Your task to perform on an android device: Add "duracell triple a" to the cart on amazon.com, then select checkout. Image 0: 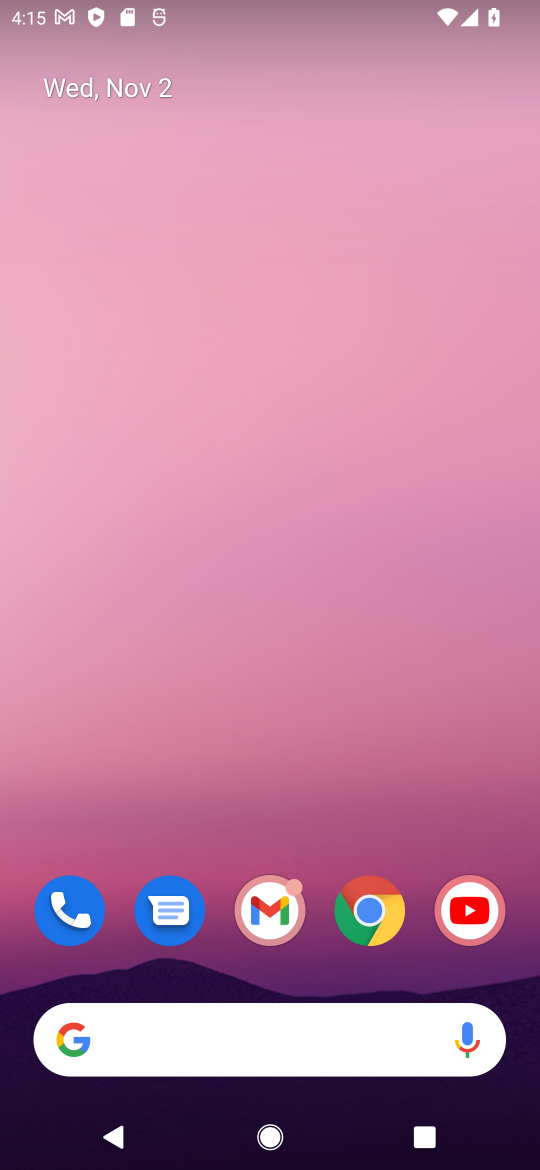
Step 0: click (376, 892)
Your task to perform on an android device: Add "duracell triple a" to the cart on amazon.com, then select checkout. Image 1: 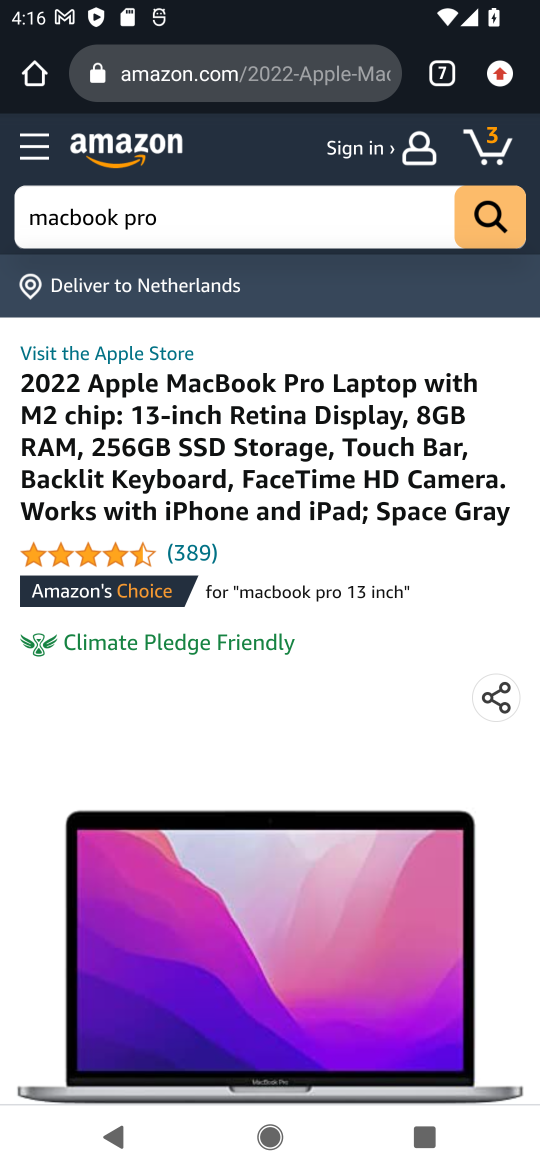
Step 1: click (174, 217)
Your task to perform on an android device: Add "duracell triple a" to the cart on amazon.com, then select checkout. Image 2: 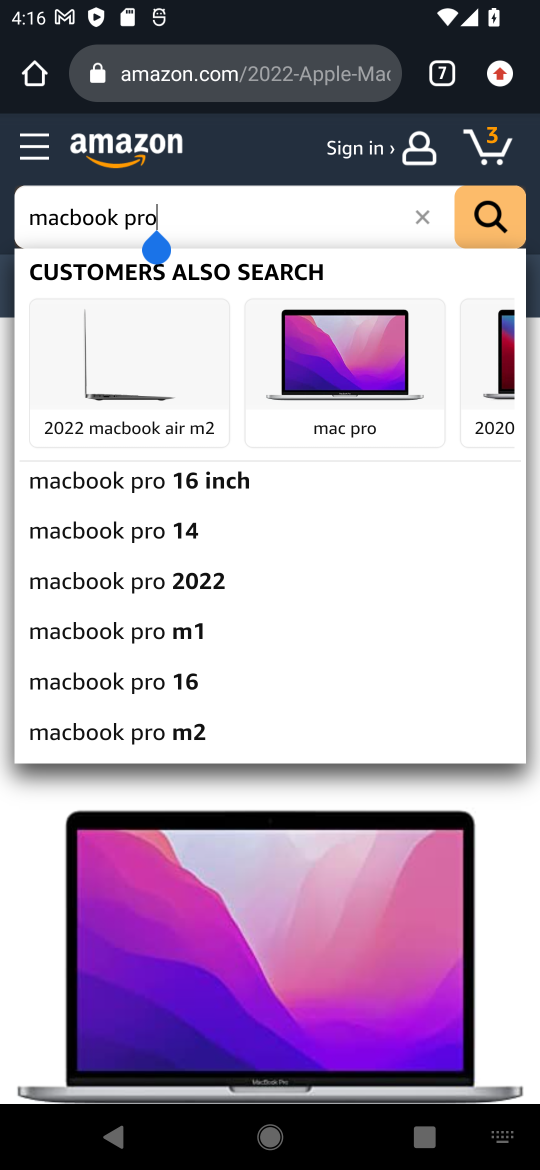
Step 2: click (425, 213)
Your task to perform on an android device: Add "duracell triple a" to the cart on amazon.com, then select checkout. Image 3: 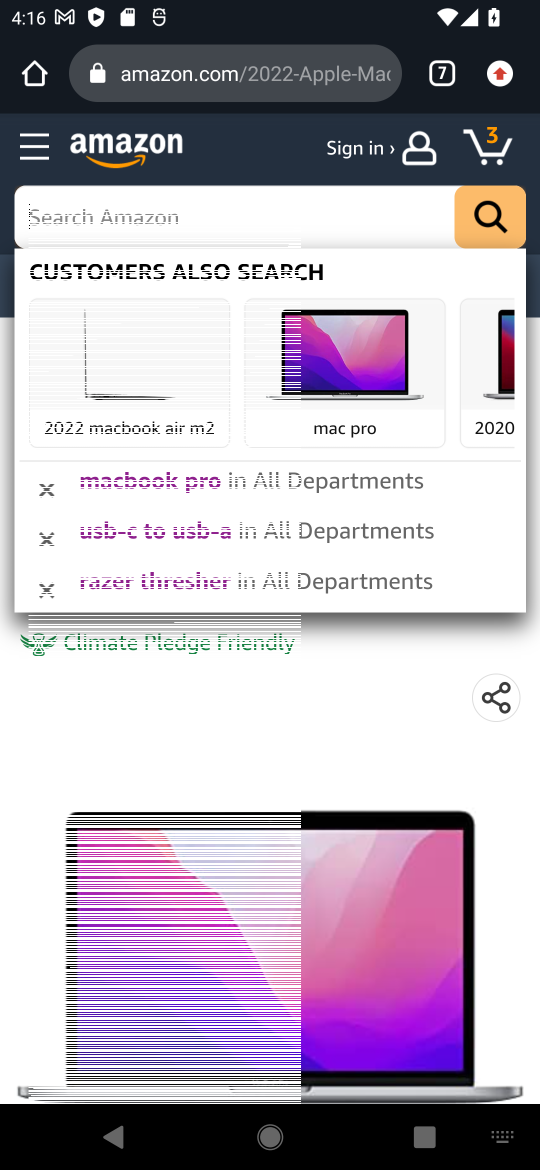
Step 3: type "duracell triple a"
Your task to perform on an android device: Add "duracell triple a" to the cart on amazon.com, then select checkout. Image 4: 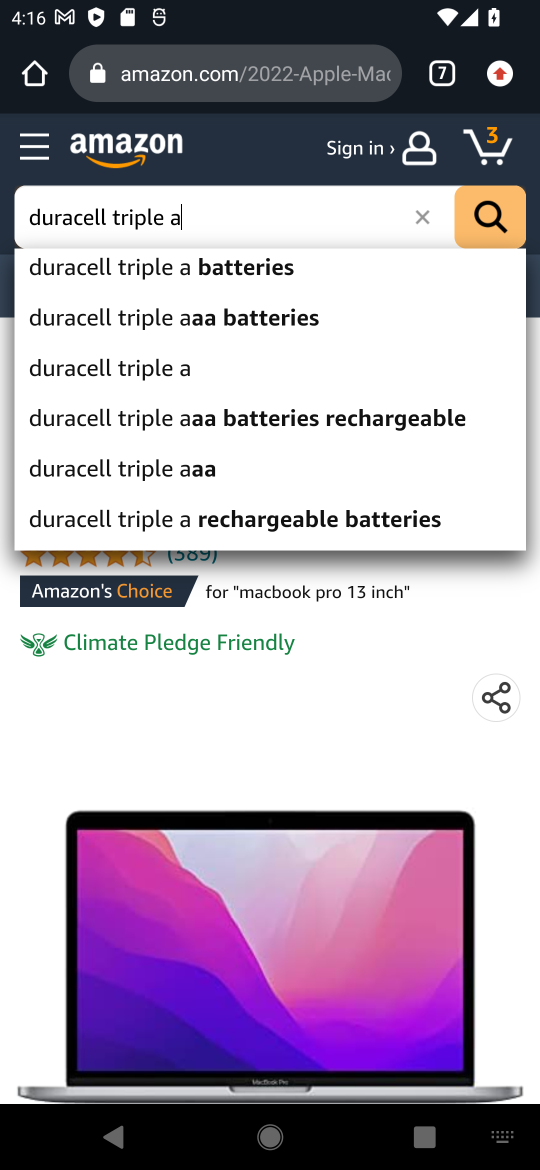
Step 4: click (247, 263)
Your task to perform on an android device: Add "duracell triple a" to the cart on amazon.com, then select checkout. Image 5: 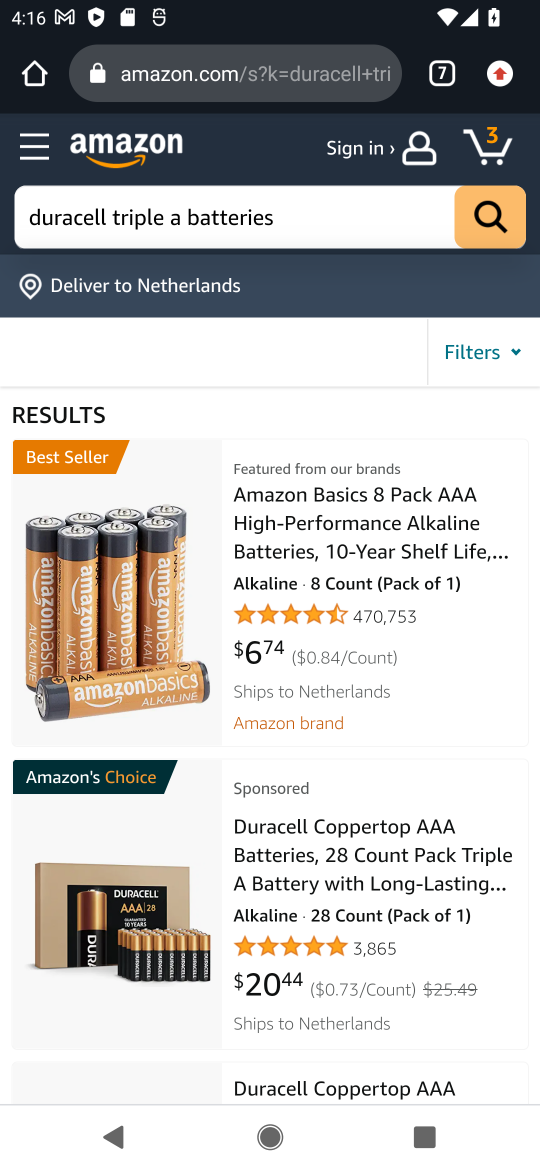
Step 5: click (363, 540)
Your task to perform on an android device: Add "duracell triple a" to the cart on amazon.com, then select checkout. Image 6: 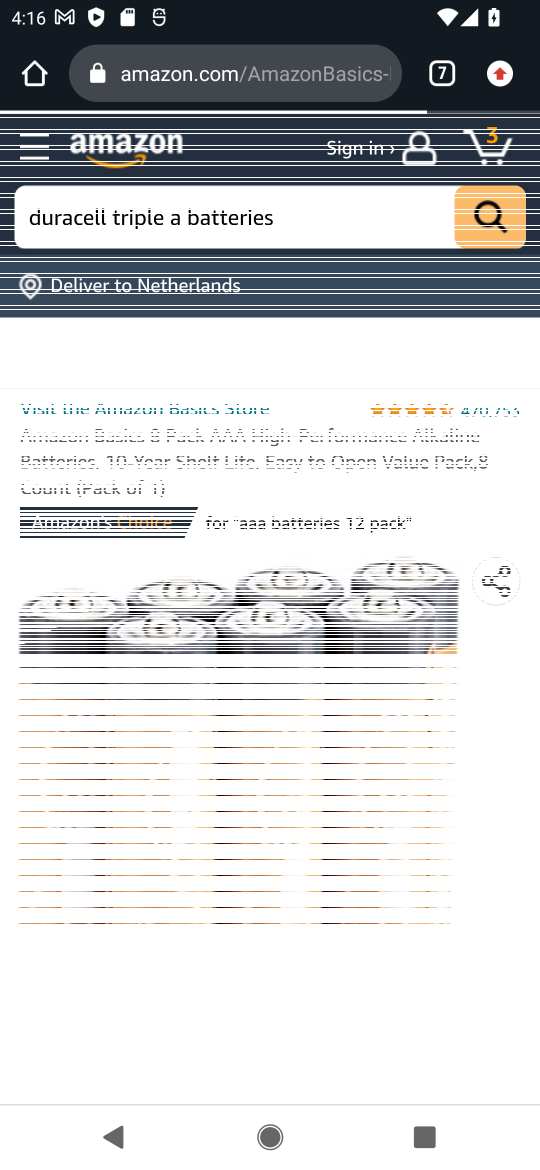
Step 6: drag from (336, 731) to (362, 403)
Your task to perform on an android device: Add "duracell triple a" to the cart on amazon.com, then select checkout. Image 7: 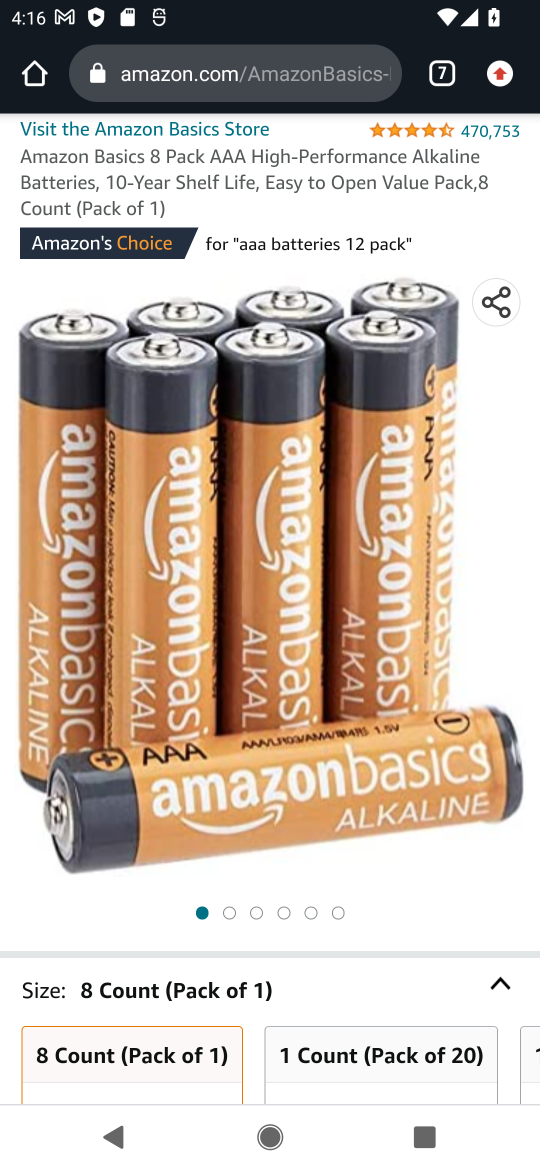
Step 7: press back button
Your task to perform on an android device: Add "duracell triple a" to the cart on amazon.com, then select checkout. Image 8: 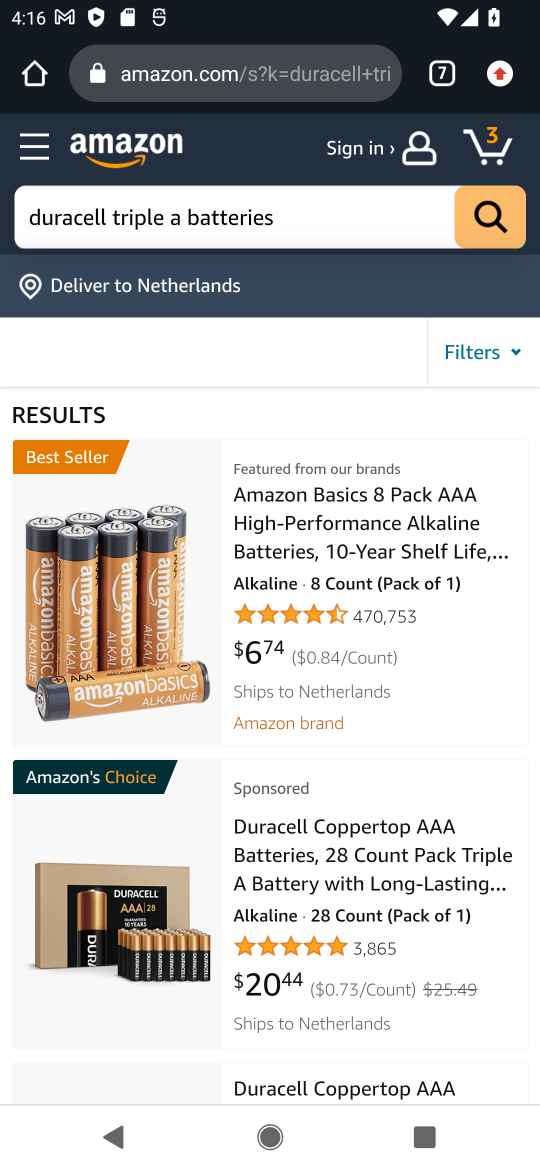
Step 8: click (392, 885)
Your task to perform on an android device: Add "duracell triple a" to the cart on amazon.com, then select checkout. Image 9: 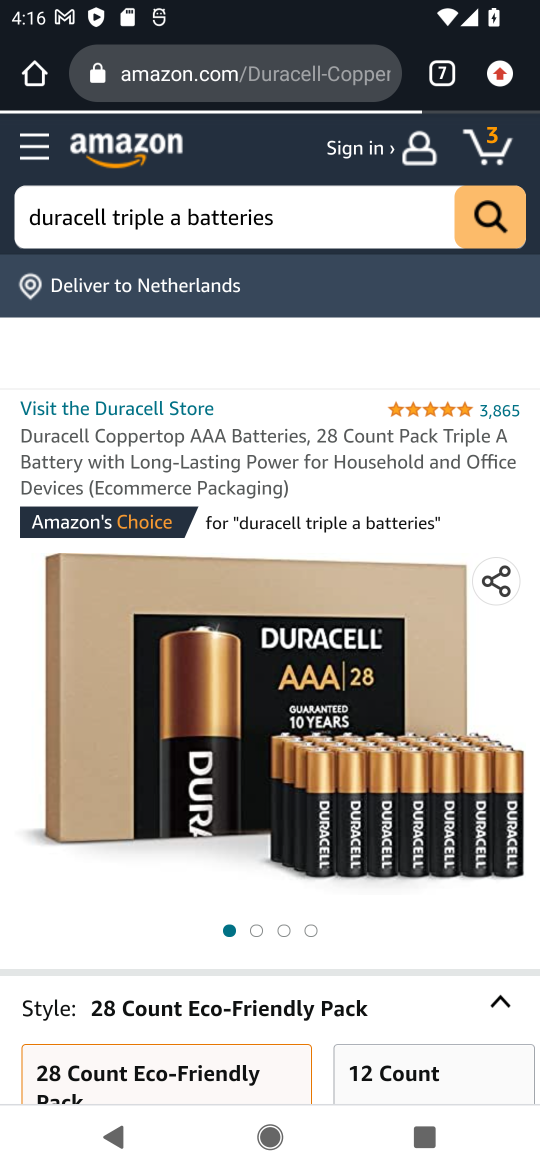
Step 9: drag from (350, 976) to (346, 411)
Your task to perform on an android device: Add "duracell triple a" to the cart on amazon.com, then select checkout. Image 10: 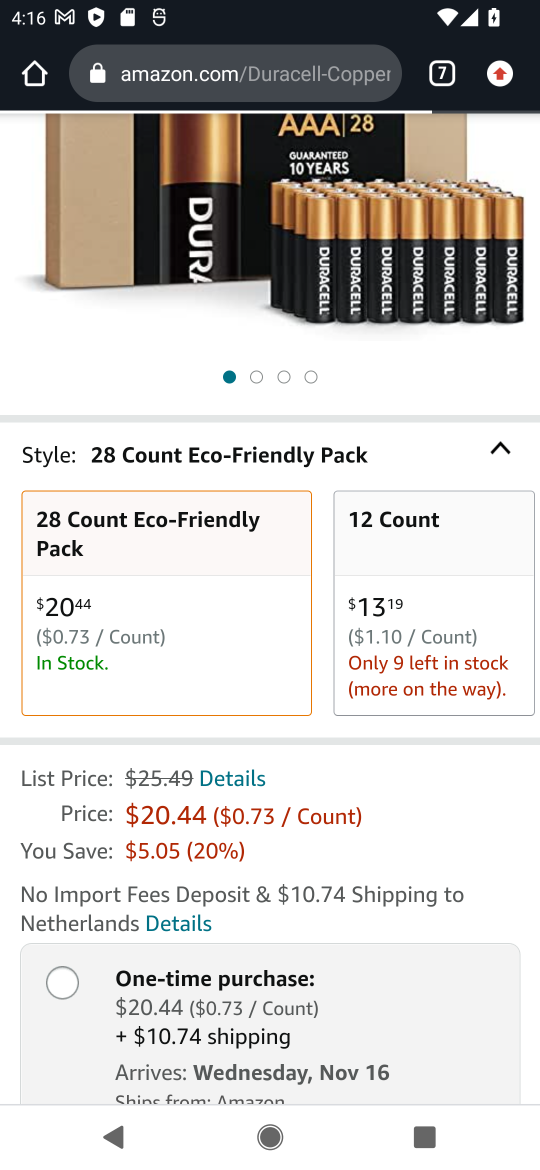
Step 10: drag from (339, 939) to (311, 376)
Your task to perform on an android device: Add "duracell triple a" to the cart on amazon.com, then select checkout. Image 11: 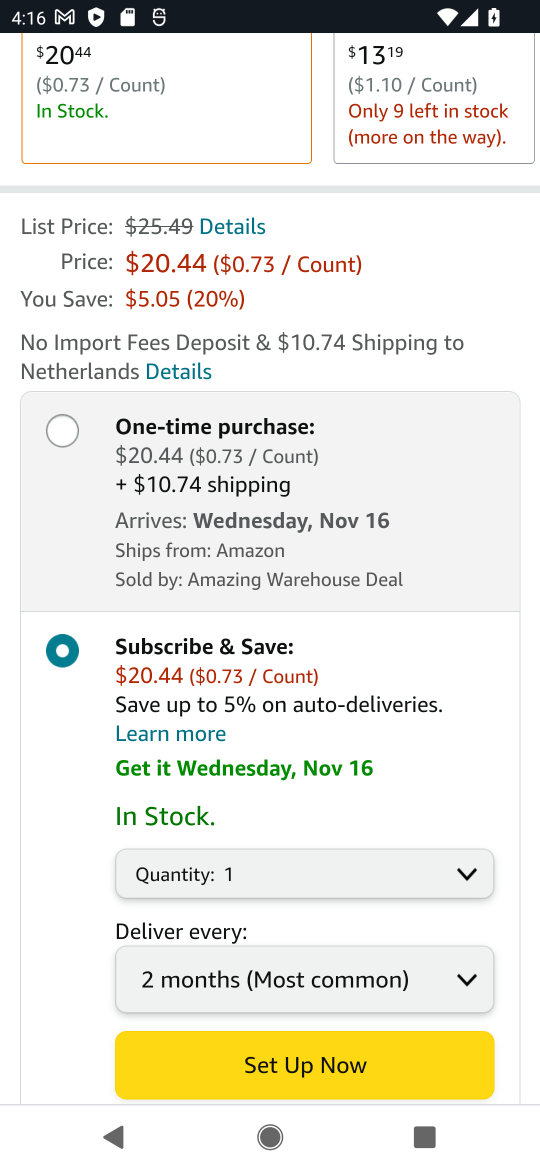
Step 11: drag from (322, 970) to (242, 334)
Your task to perform on an android device: Add "duracell triple a" to the cart on amazon.com, then select checkout. Image 12: 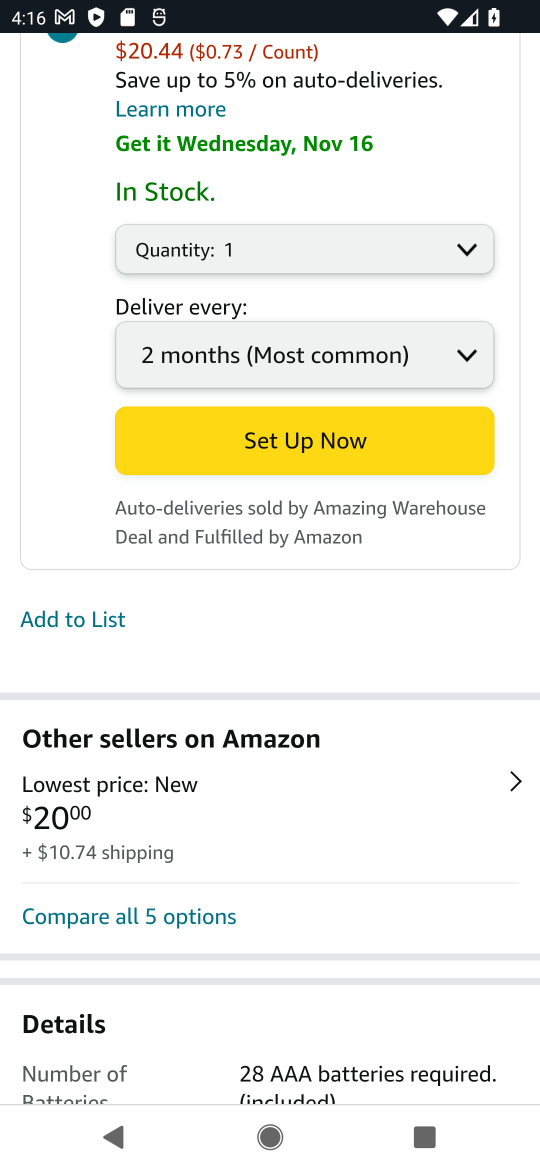
Step 12: click (83, 623)
Your task to perform on an android device: Add "duracell triple a" to the cart on amazon.com, then select checkout. Image 13: 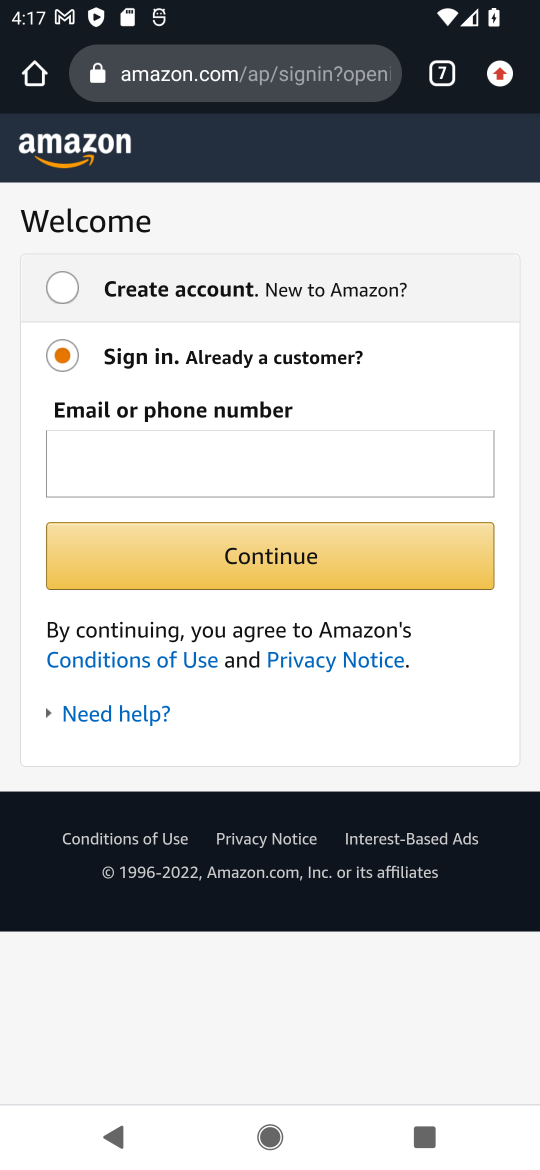
Step 13: task complete